Your task to perform on an android device: change your default location settings in chrome Image 0: 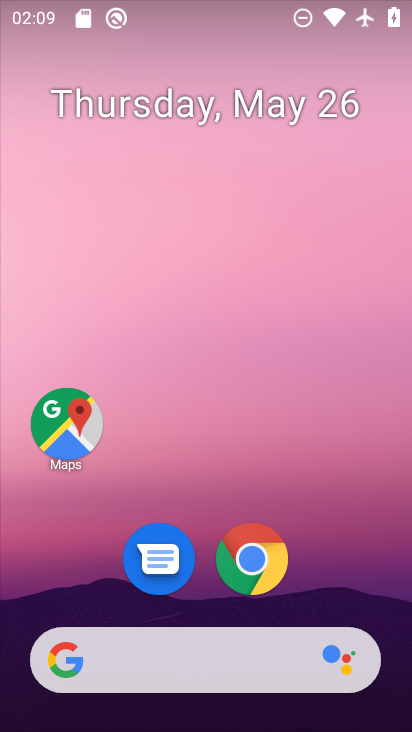
Step 0: press home button
Your task to perform on an android device: change your default location settings in chrome Image 1: 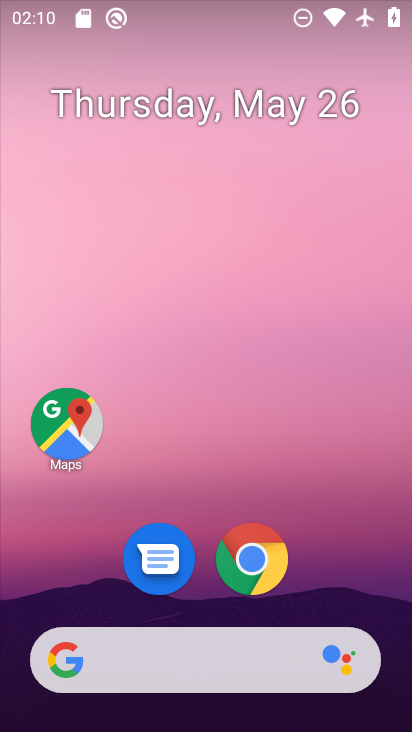
Step 1: click (253, 575)
Your task to perform on an android device: change your default location settings in chrome Image 2: 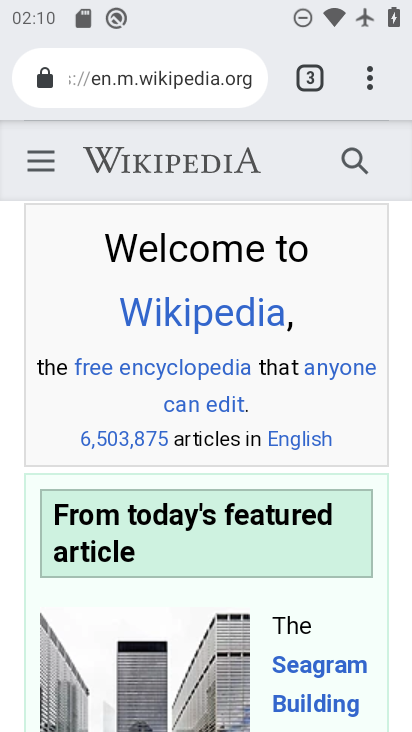
Step 2: drag from (377, 84) to (196, 614)
Your task to perform on an android device: change your default location settings in chrome Image 3: 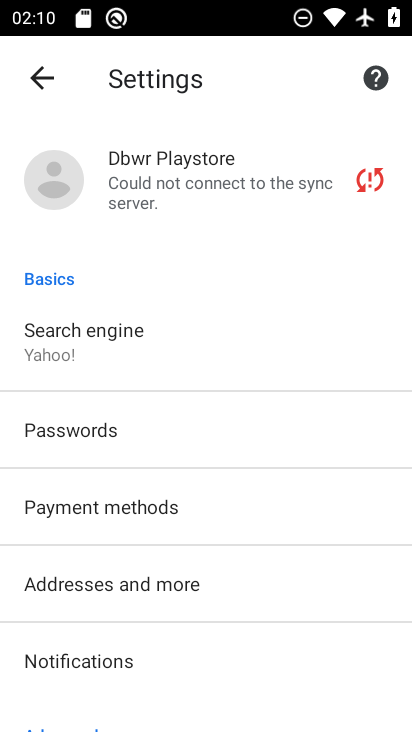
Step 3: click (88, 351)
Your task to perform on an android device: change your default location settings in chrome Image 4: 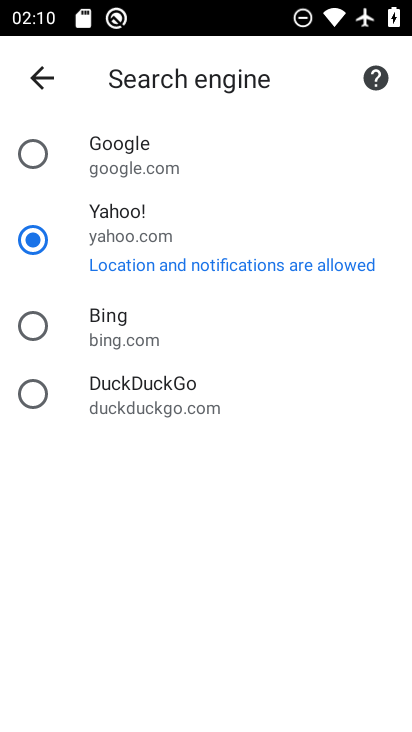
Step 4: click (73, 327)
Your task to perform on an android device: change your default location settings in chrome Image 5: 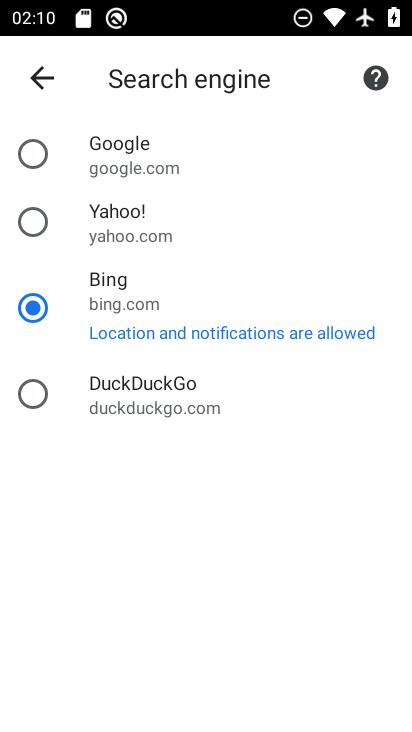
Step 5: click (32, 156)
Your task to perform on an android device: change your default location settings in chrome Image 6: 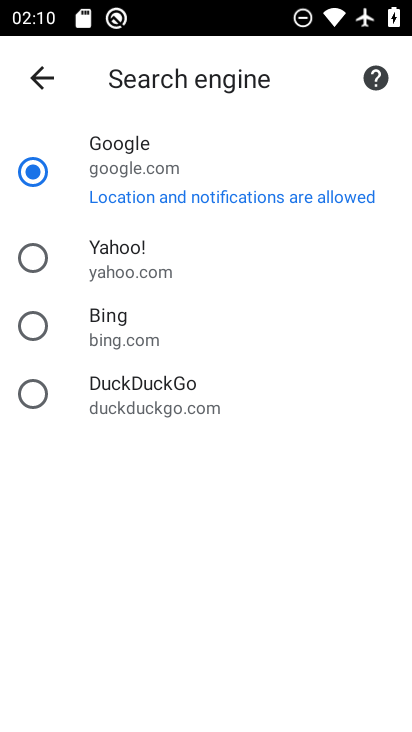
Step 6: task complete